Your task to perform on an android device: stop showing notifications on the lock screen Image 0: 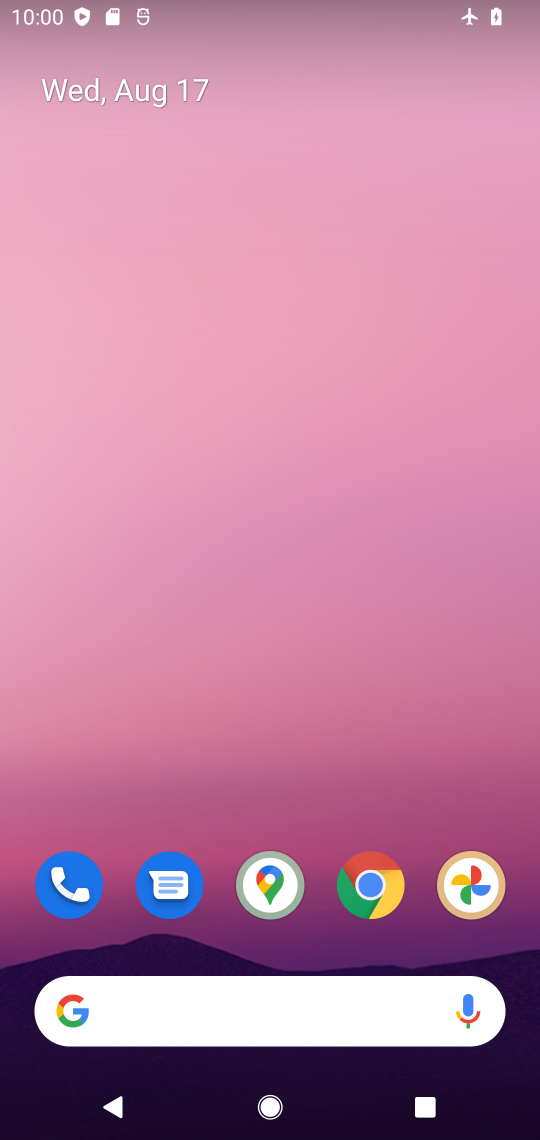
Step 0: drag from (426, 947) to (394, 81)
Your task to perform on an android device: stop showing notifications on the lock screen Image 1: 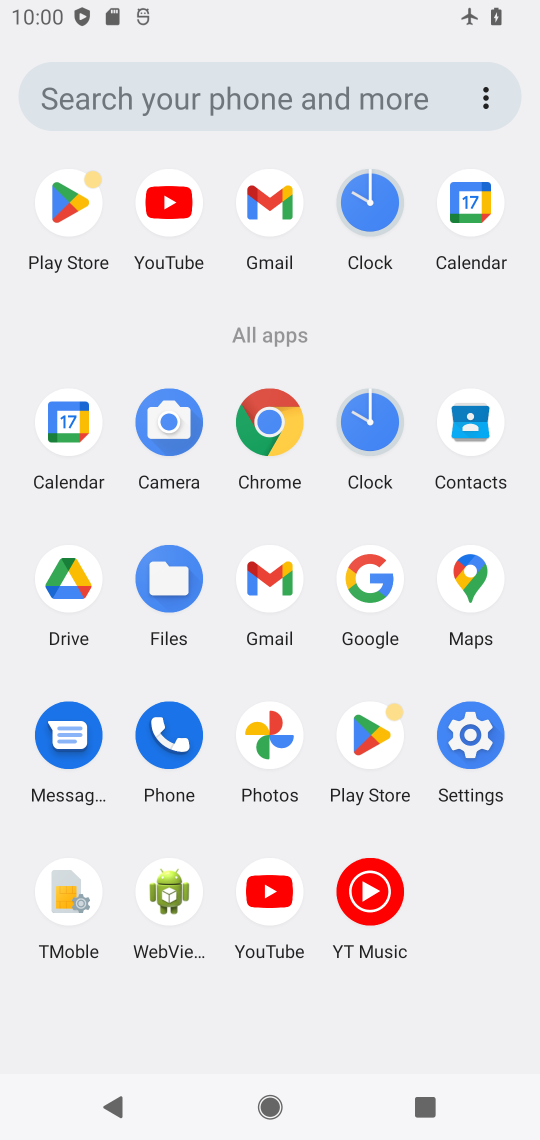
Step 1: click (469, 737)
Your task to perform on an android device: stop showing notifications on the lock screen Image 2: 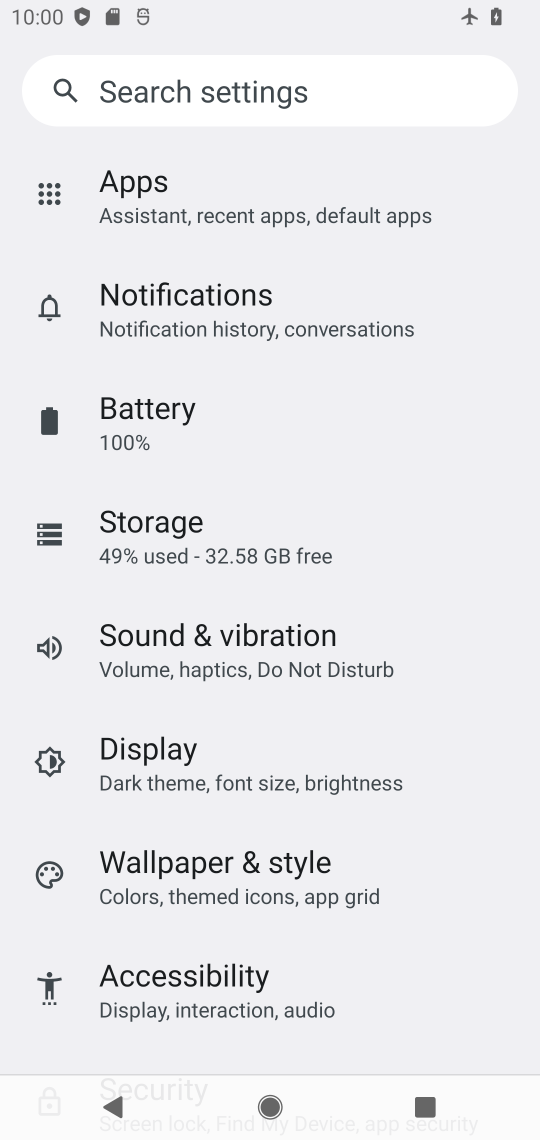
Step 2: click (190, 304)
Your task to perform on an android device: stop showing notifications on the lock screen Image 3: 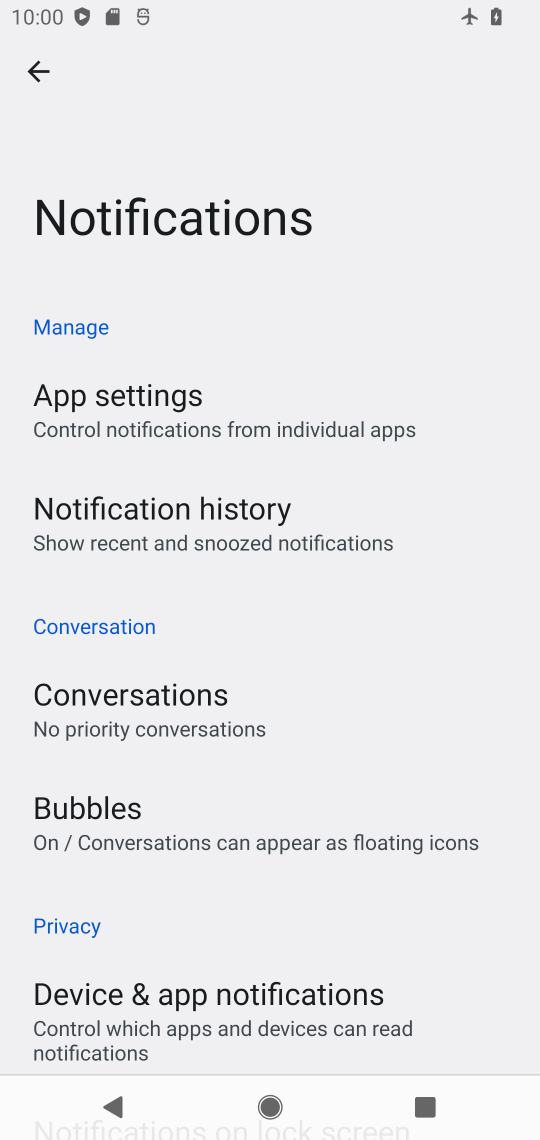
Step 3: drag from (377, 781) to (414, 213)
Your task to perform on an android device: stop showing notifications on the lock screen Image 4: 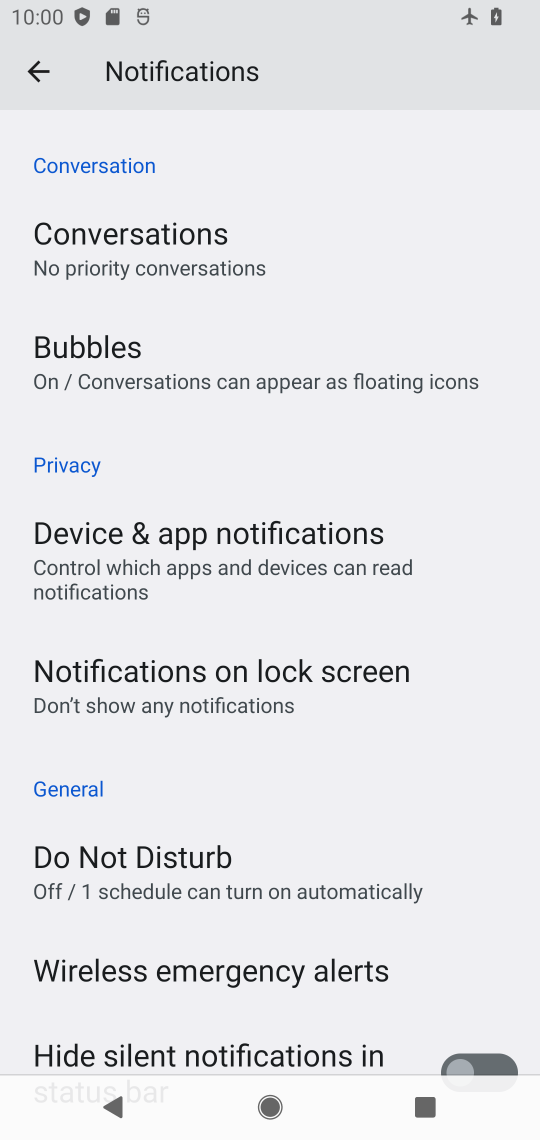
Step 4: click (225, 674)
Your task to perform on an android device: stop showing notifications on the lock screen Image 5: 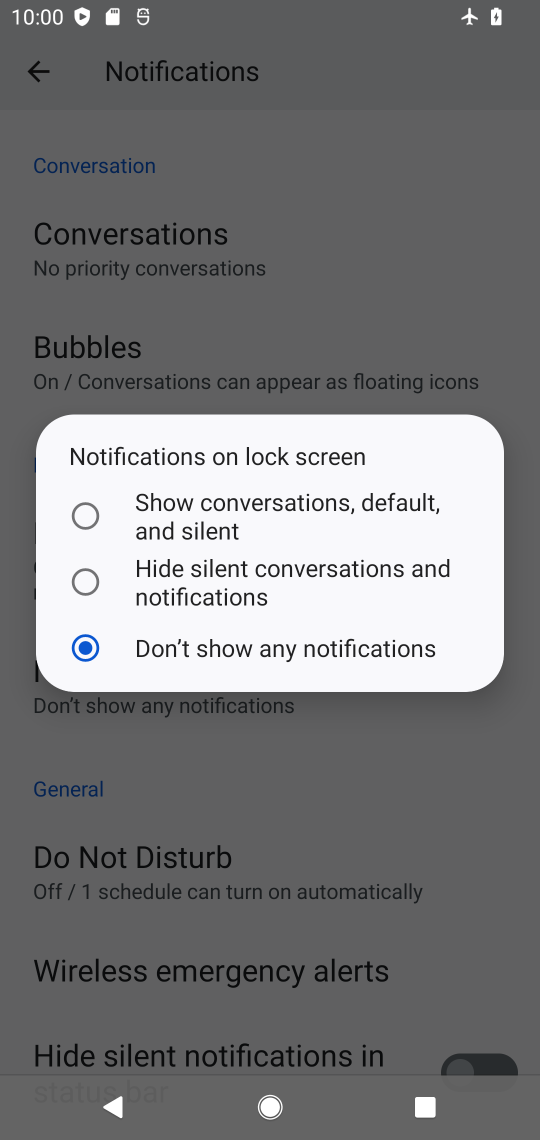
Step 5: task complete